Your task to perform on an android device: Show the shopping cart on target. Image 0: 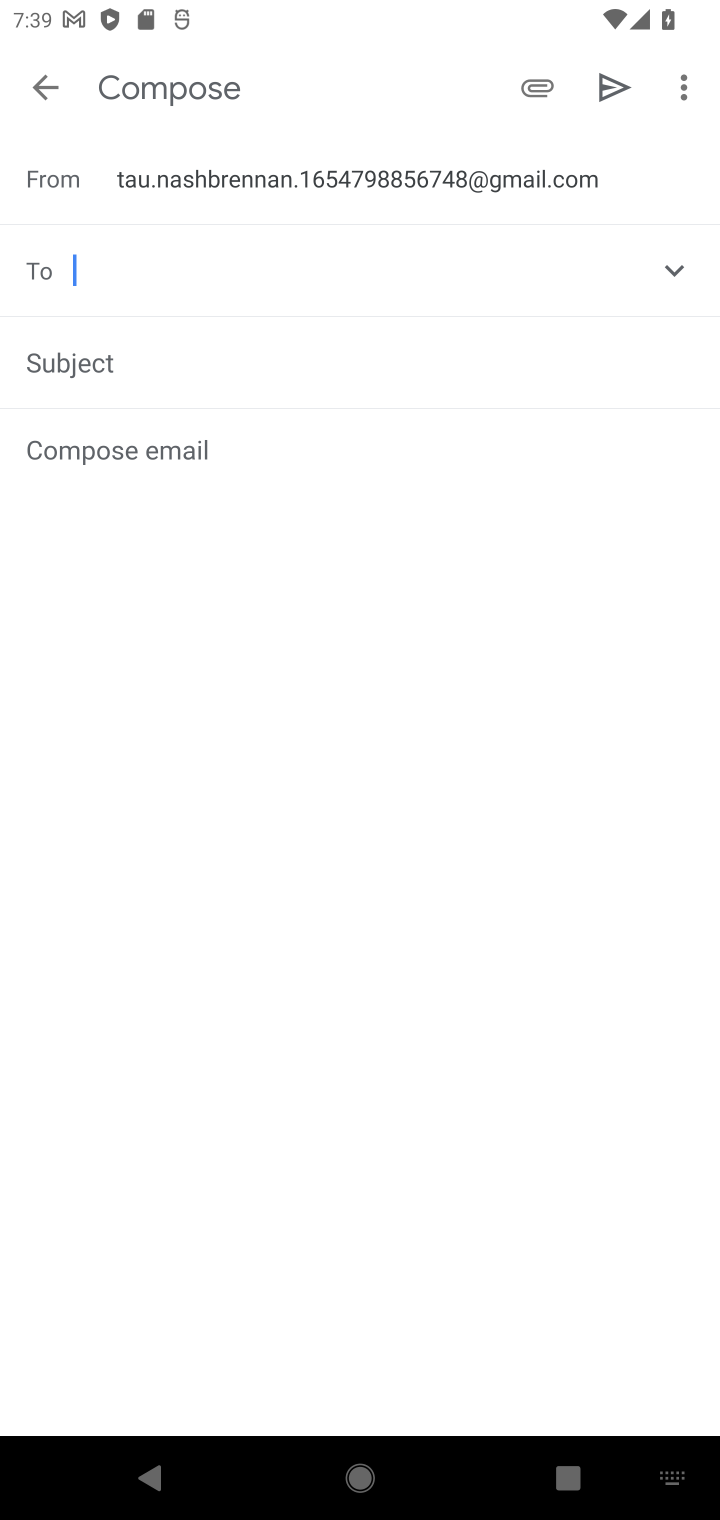
Step 0: press home button
Your task to perform on an android device: Show the shopping cart on target. Image 1: 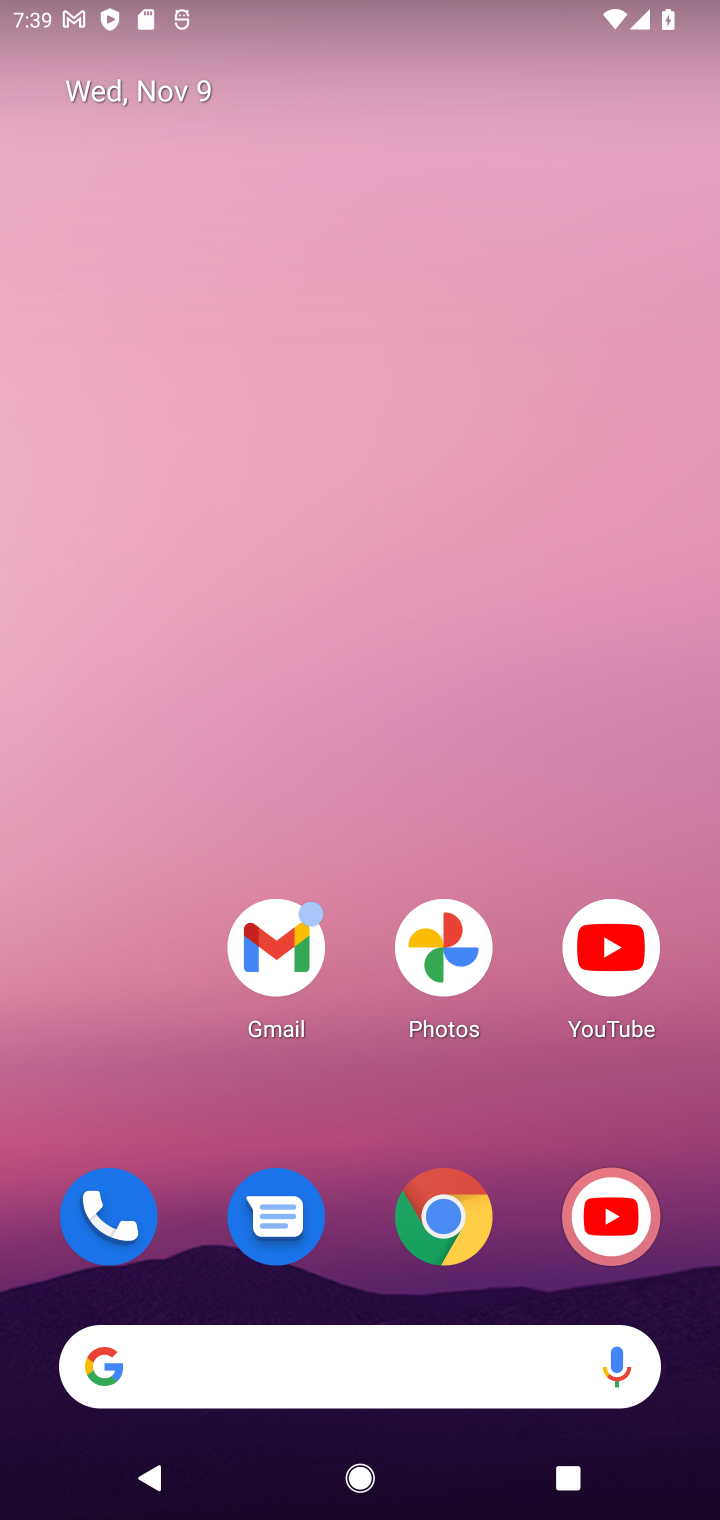
Step 1: drag from (366, 648) to (404, 171)
Your task to perform on an android device: Show the shopping cart on target. Image 2: 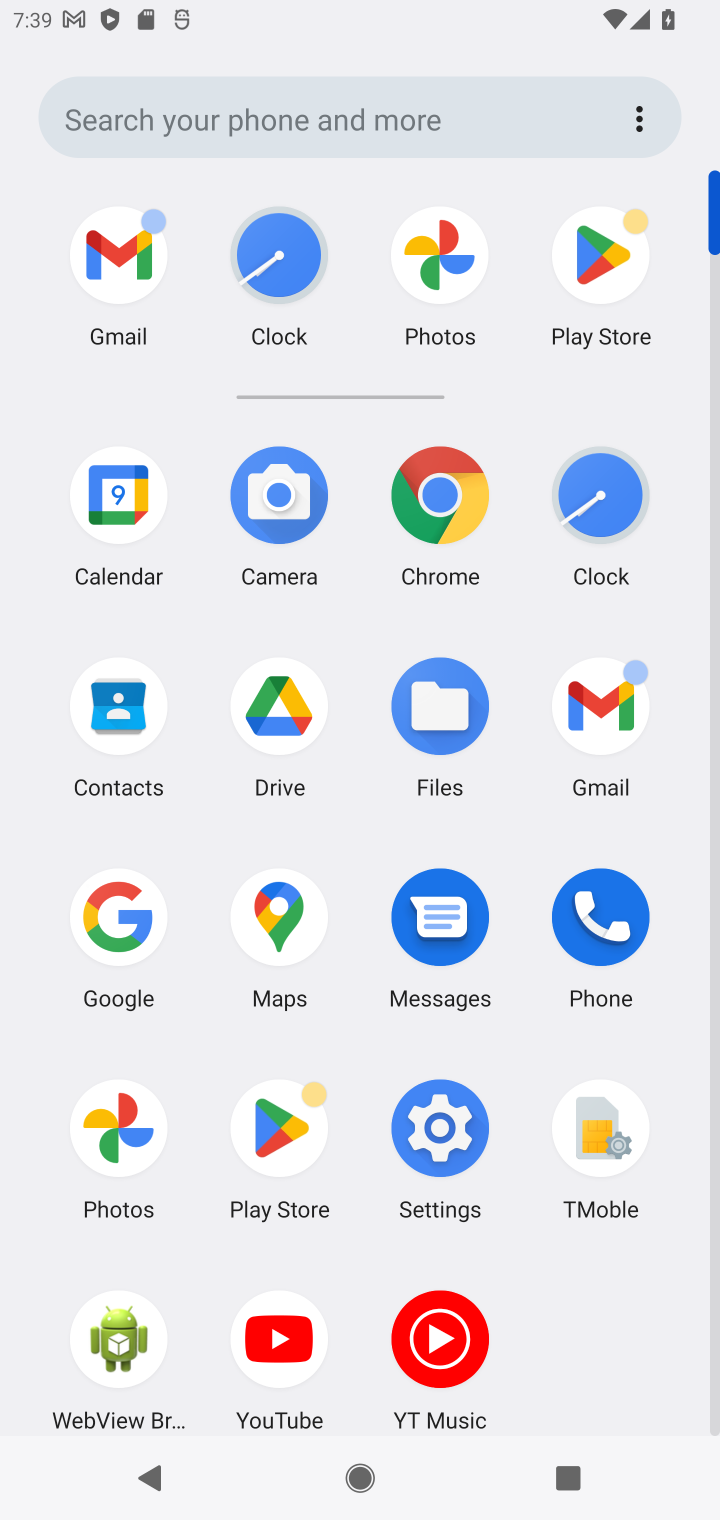
Step 2: click (446, 509)
Your task to perform on an android device: Show the shopping cart on target. Image 3: 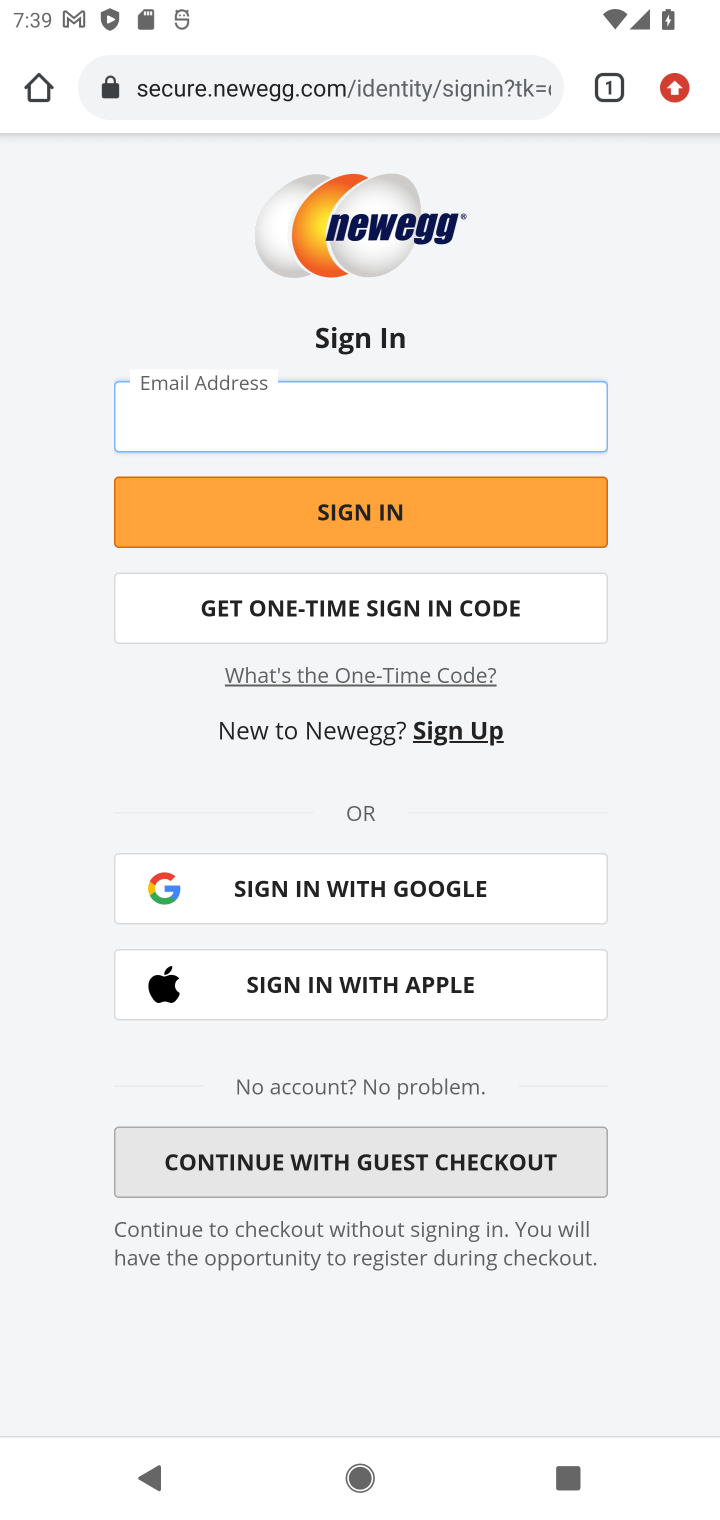
Step 3: click (305, 83)
Your task to perform on an android device: Show the shopping cart on target. Image 4: 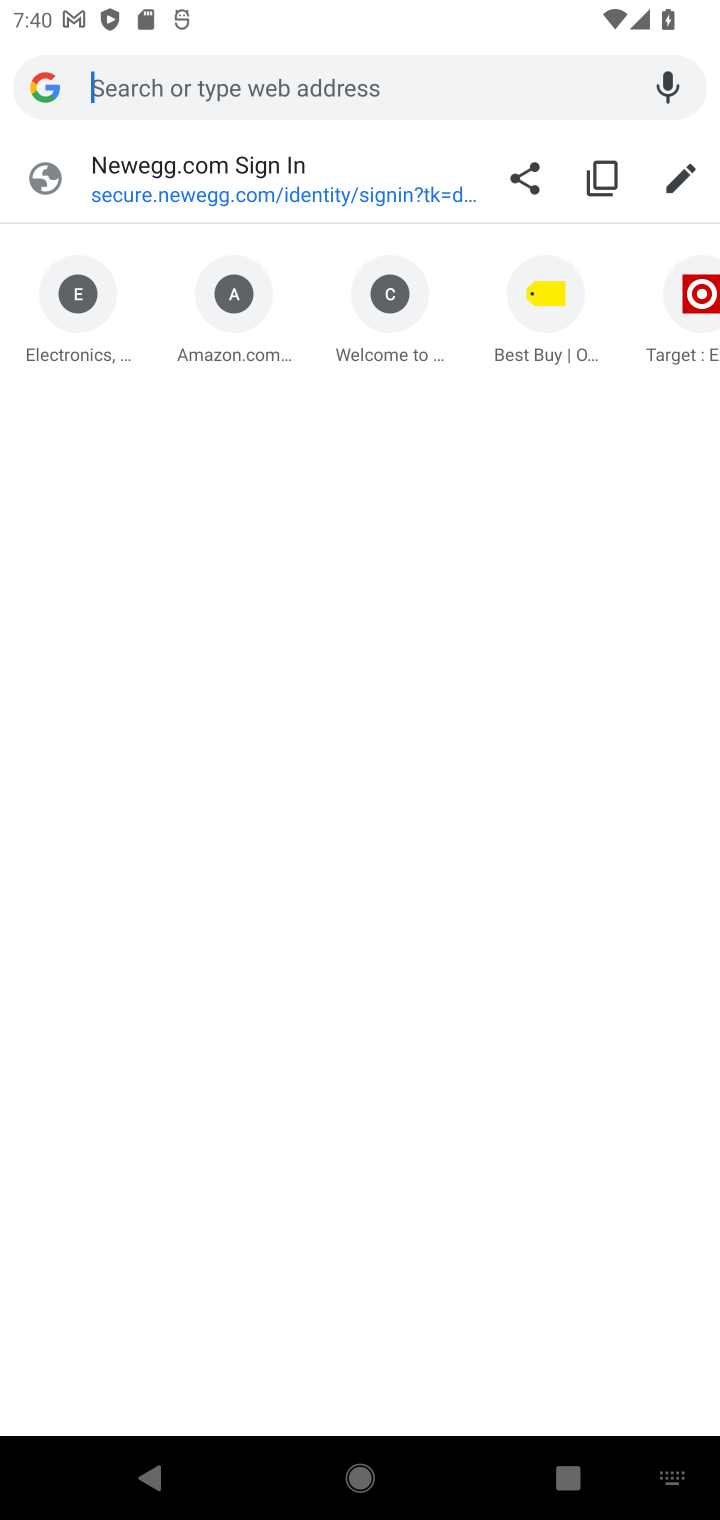
Step 4: type "target.com"
Your task to perform on an android device: Show the shopping cart on target. Image 5: 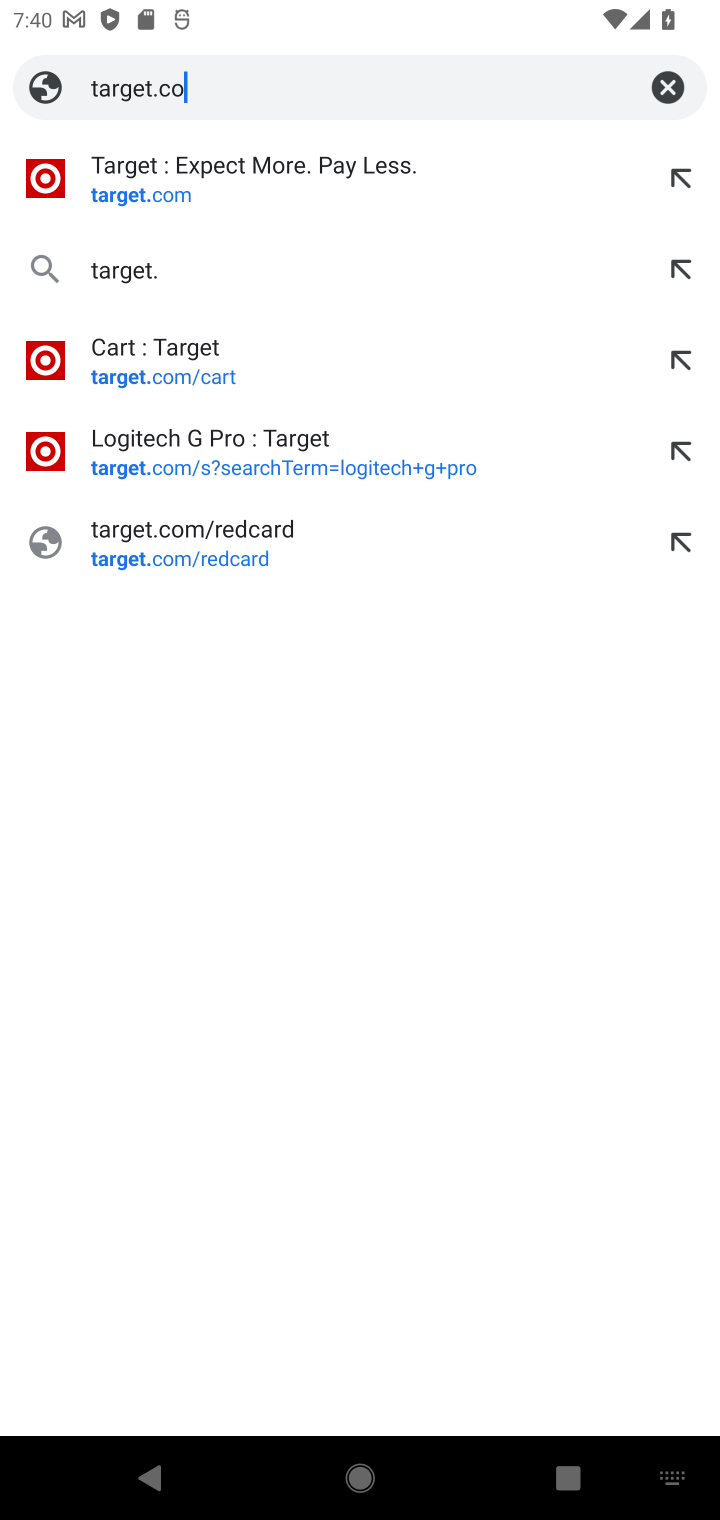
Step 5: press enter
Your task to perform on an android device: Show the shopping cart on target. Image 6: 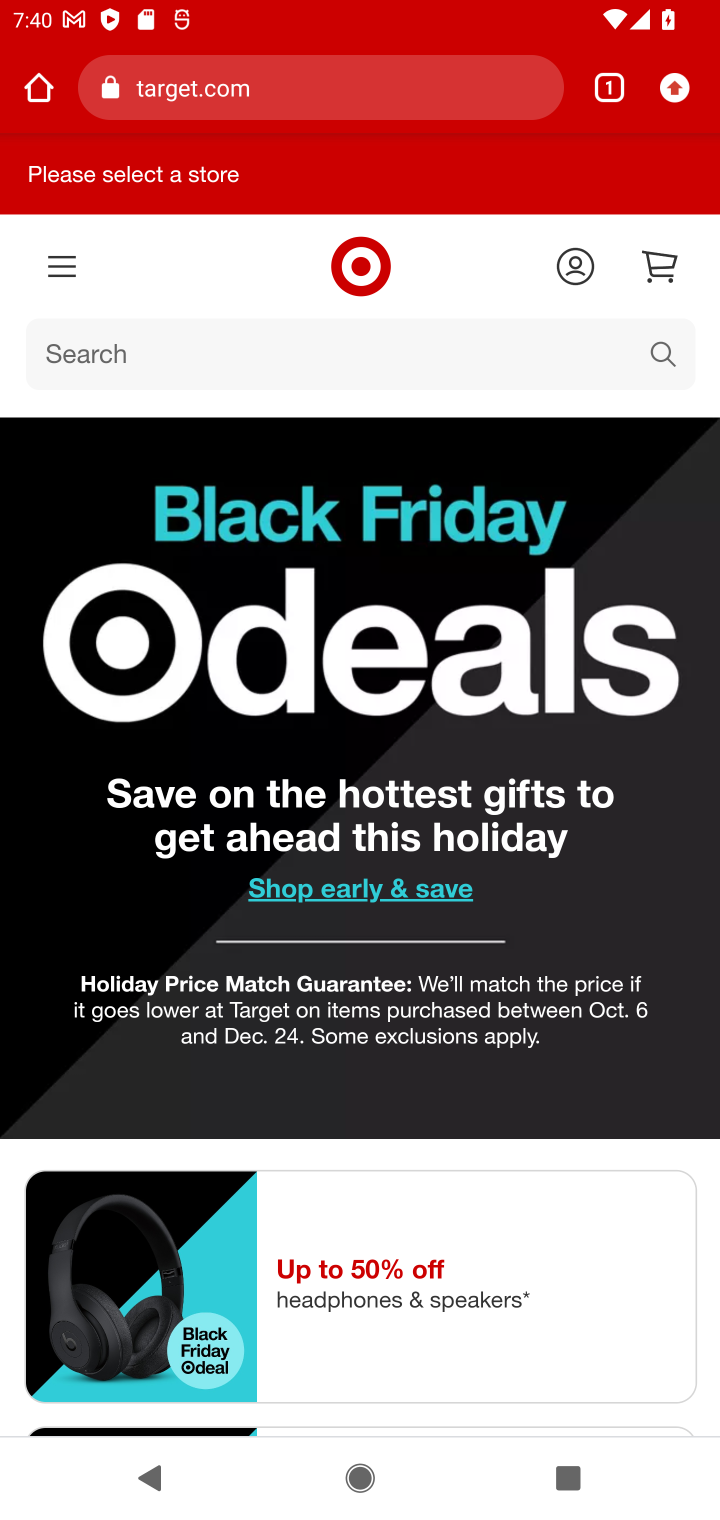
Step 6: click (654, 269)
Your task to perform on an android device: Show the shopping cart on target. Image 7: 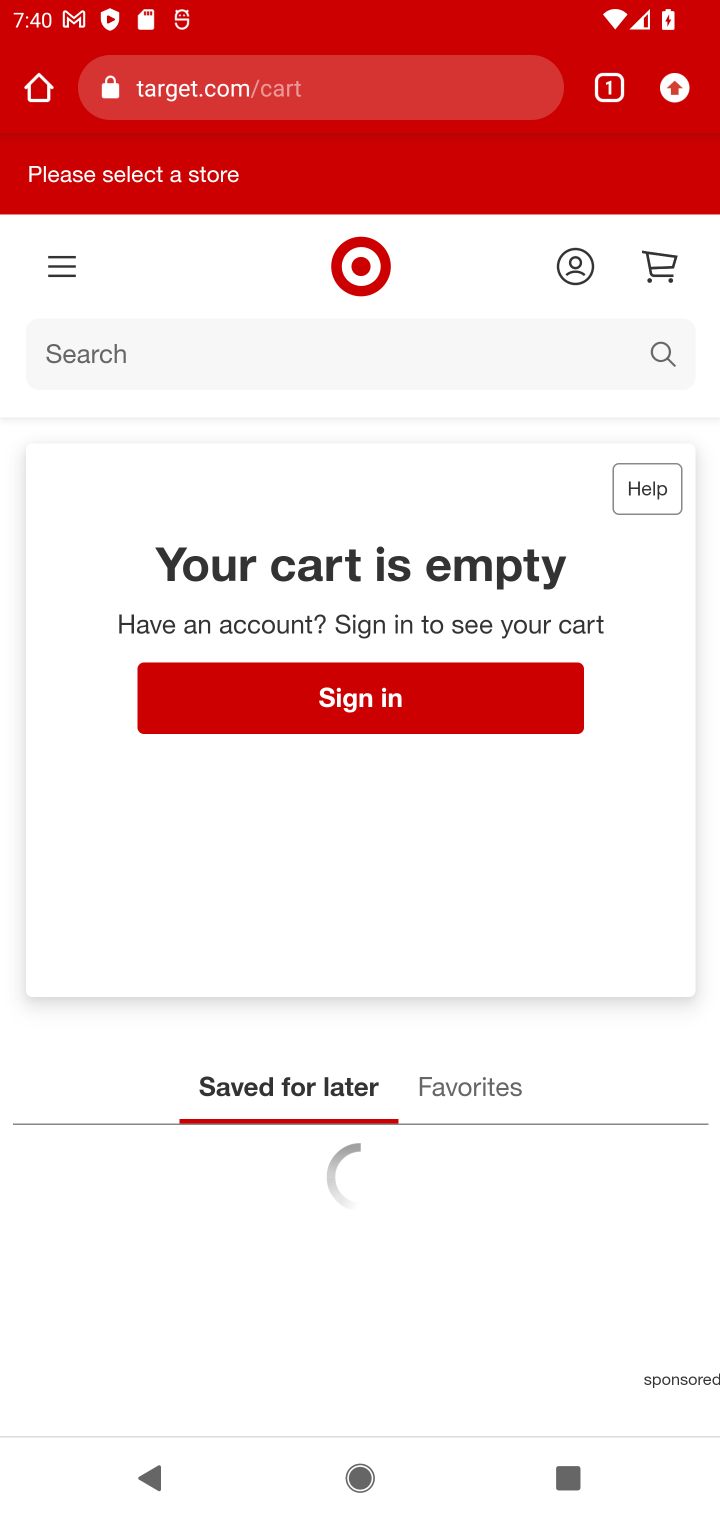
Step 7: task complete